Your task to perform on an android device: What's the weather? Image 0: 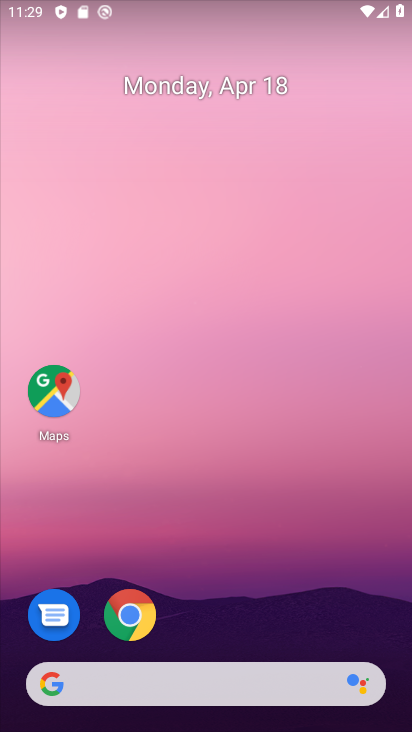
Step 0: drag from (208, 725) to (222, 42)
Your task to perform on an android device: What's the weather? Image 1: 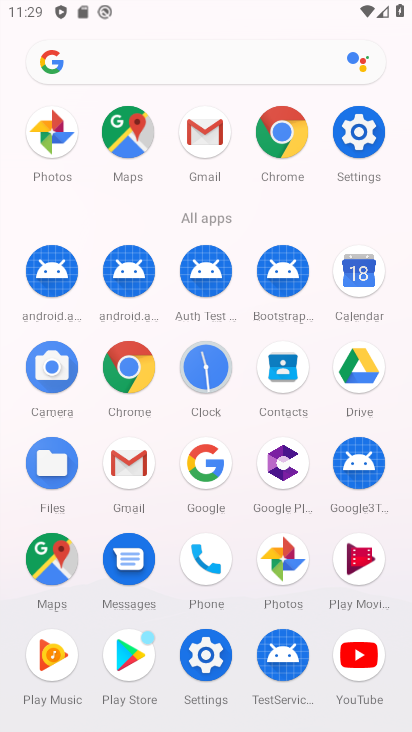
Step 1: drag from (234, 627) to (193, 192)
Your task to perform on an android device: What's the weather? Image 2: 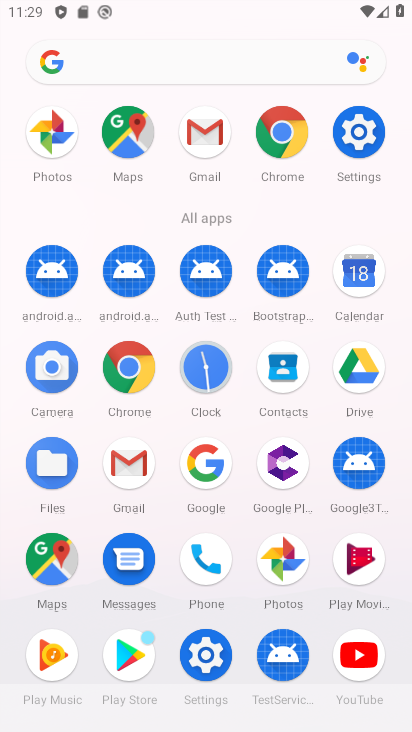
Step 2: click (212, 457)
Your task to perform on an android device: What's the weather? Image 3: 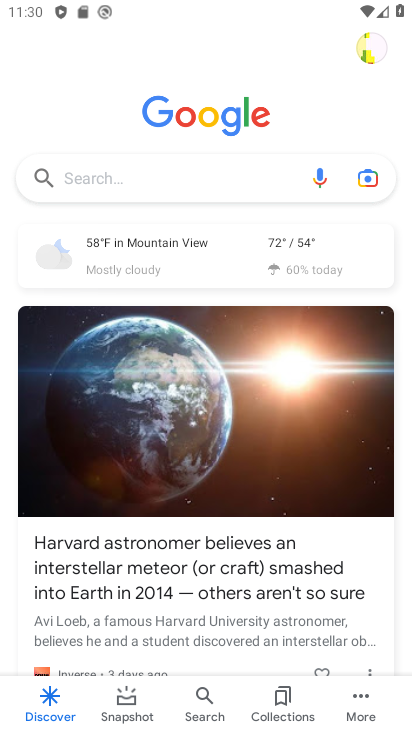
Step 3: click (295, 247)
Your task to perform on an android device: What's the weather? Image 4: 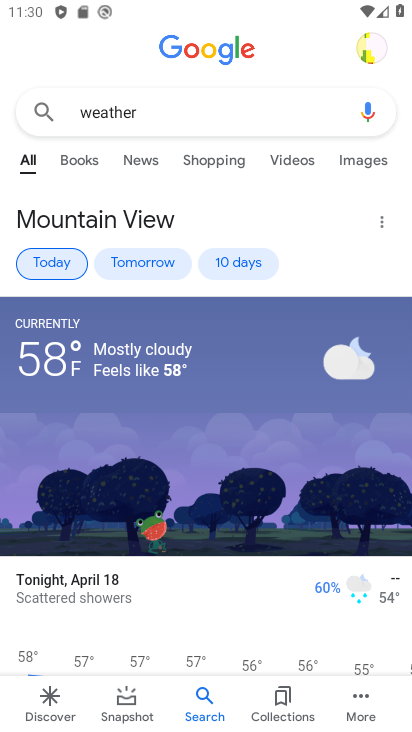
Step 4: task complete